Your task to perform on an android device: Go to network settings Image 0: 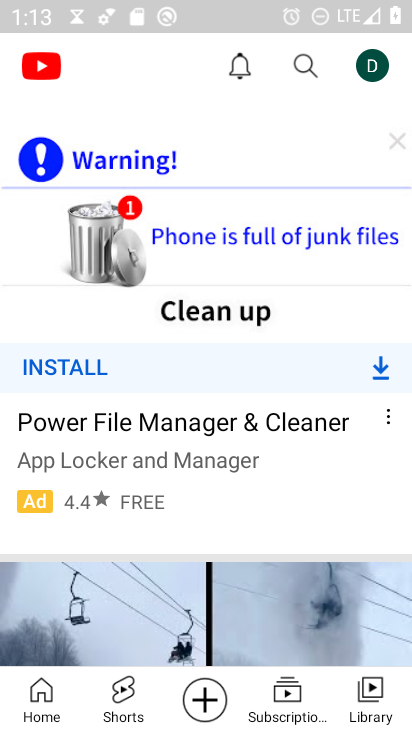
Step 0: press home button
Your task to perform on an android device: Go to network settings Image 1: 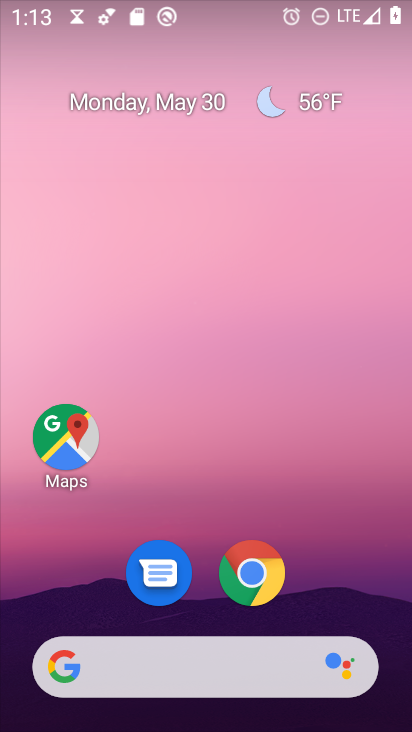
Step 1: drag from (197, 626) to (198, 115)
Your task to perform on an android device: Go to network settings Image 2: 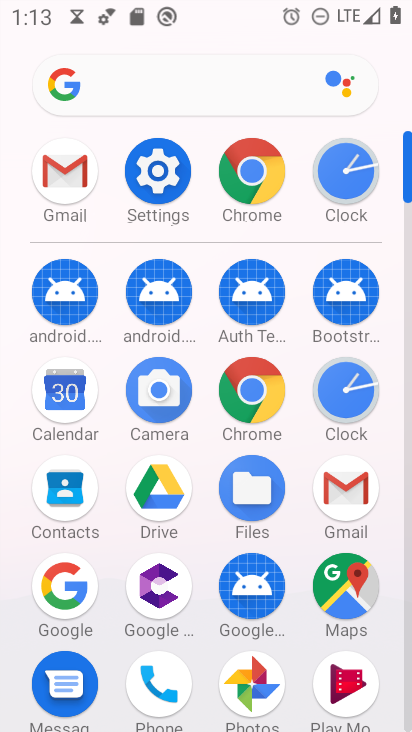
Step 2: click (148, 161)
Your task to perform on an android device: Go to network settings Image 3: 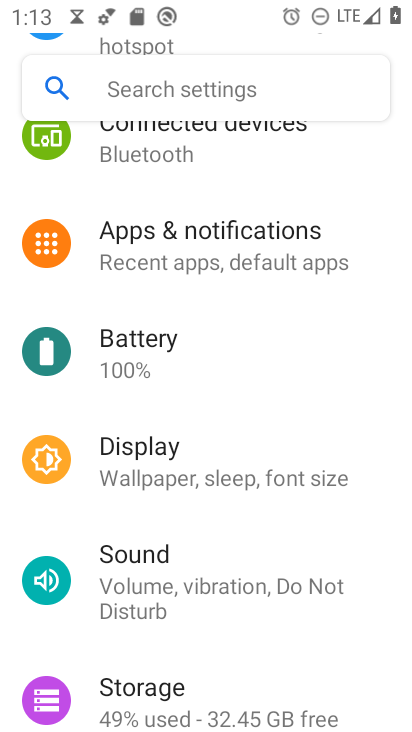
Step 3: drag from (244, 257) to (332, 730)
Your task to perform on an android device: Go to network settings Image 4: 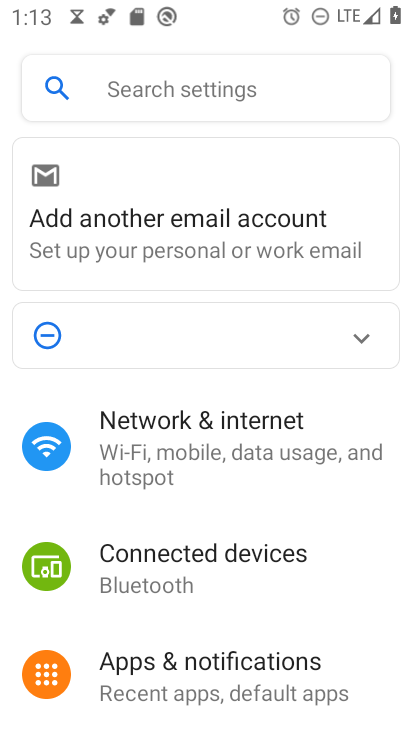
Step 4: click (176, 443)
Your task to perform on an android device: Go to network settings Image 5: 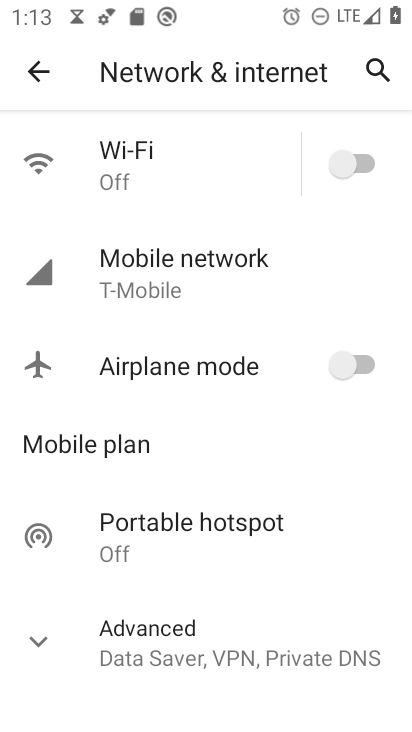
Step 5: click (210, 269)
Your task to perform on an android device: Go to network settings Image 6: 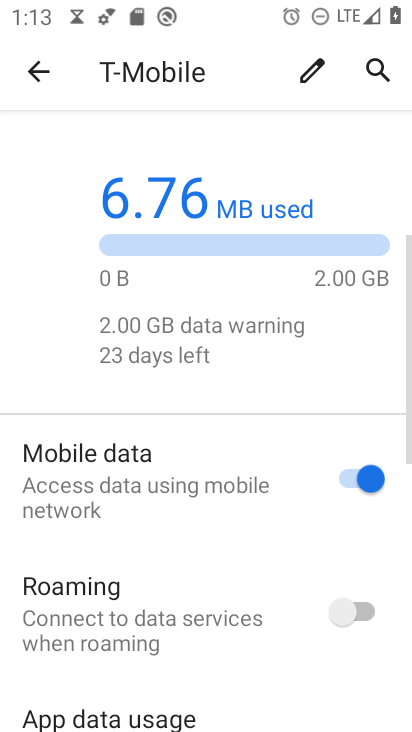
Step 6: task complete